Your task to perform on an android device: check the backup settings in the google photos Image 0: 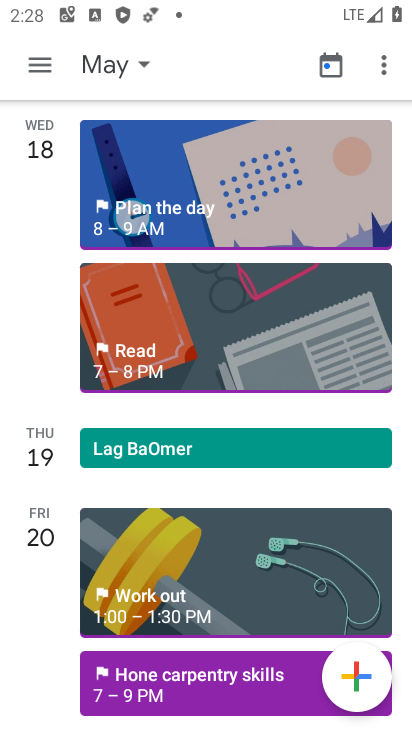
Step 0: drag from (207, 632) to (260, 116)
Your task to perform on an android device: check the backup settings in the google photos Image 1: 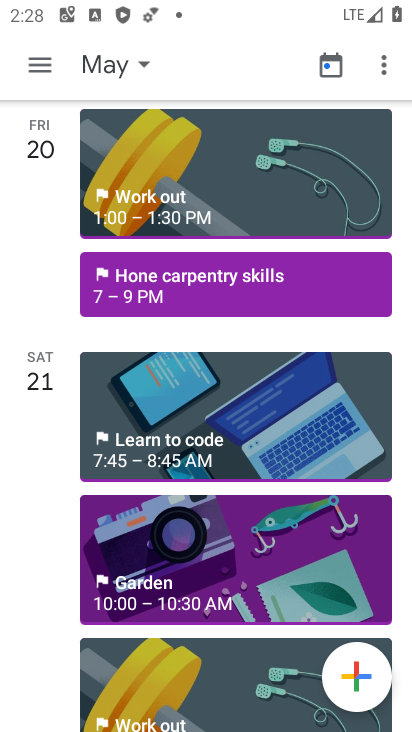
Step 1: press home button
Your task to perform on an android device: check the backup settings in the google photos Image 2: 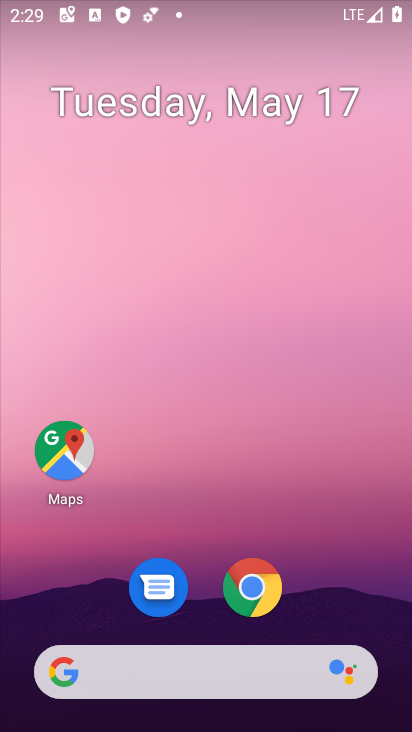
Step 2: drag from (210, 621) to (186, 118)
Your task to perform on an android device: check the backup settings in the google photos Image 3: 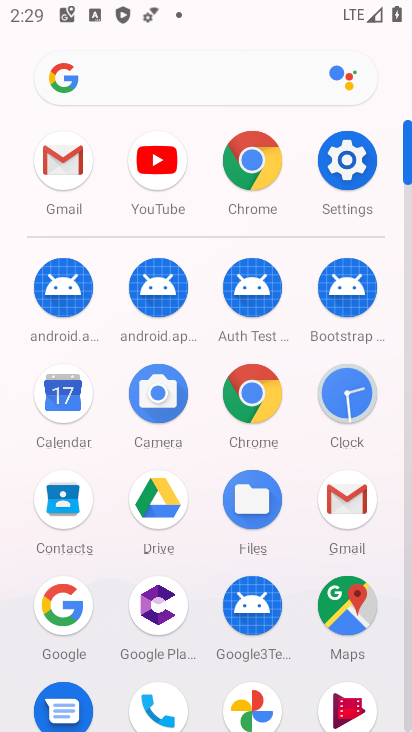
Step 3: click (250, 688)
Your task to perform on an android device: check the backup settings in the google photos Image 4: 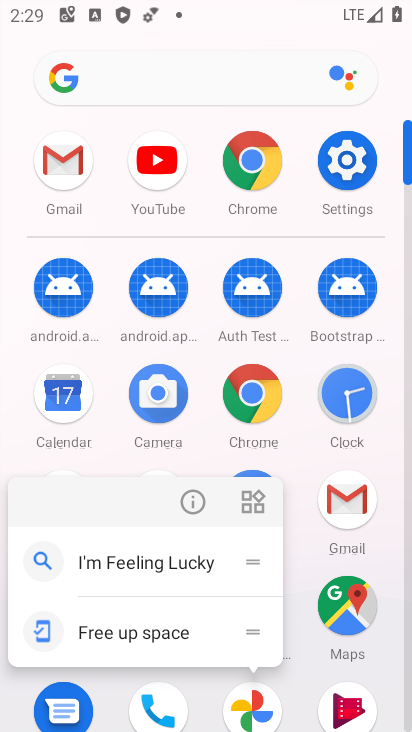
Step 4: click (182, 500)
Your task to perform on an android device: check the backup settings in the google photos Image 5: 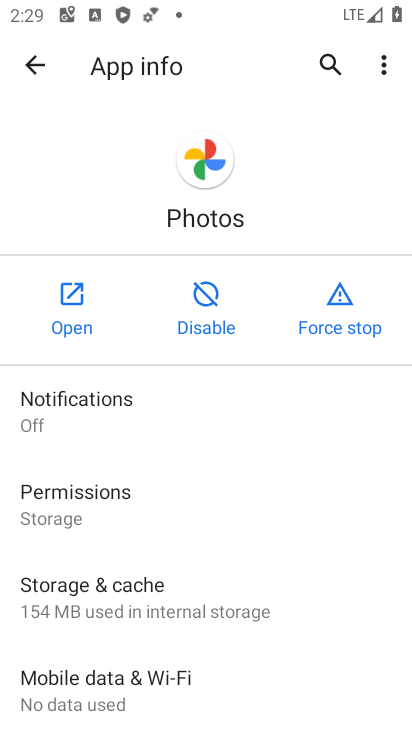
Step 5: click (78, 306)
Your task to perform on an android device: check the backup settings in the google photos Image 6: 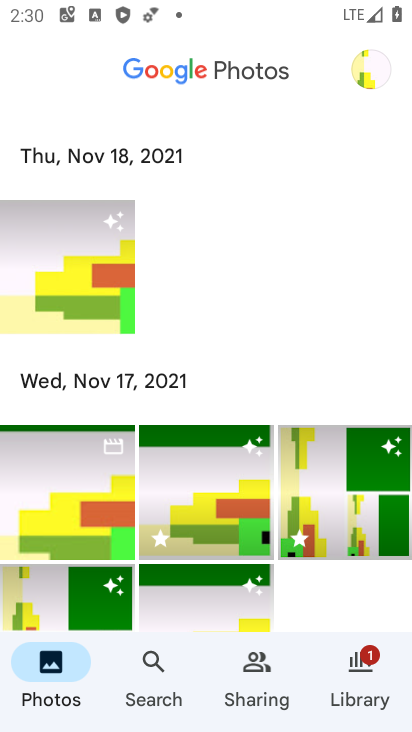
Step 6: drag from (229, 595) to (293, 179)
Your task to perform on an android device: check the backup settings in the google photos Image 7: 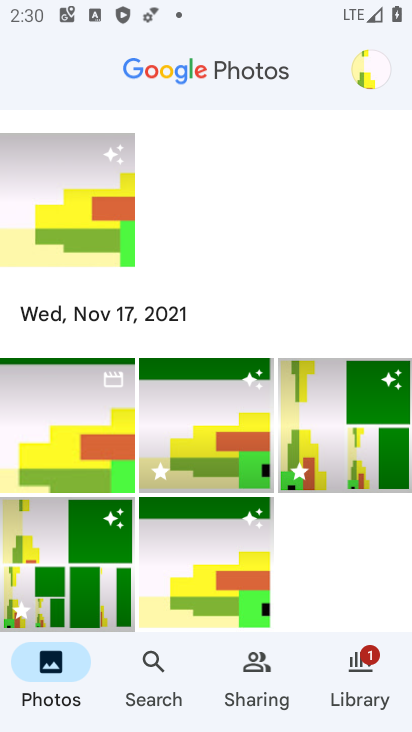
Step 7: drag from (185, 571) to (199, 282)
Your task to perform on an android device: check the backup settings in the google photos Image 8: 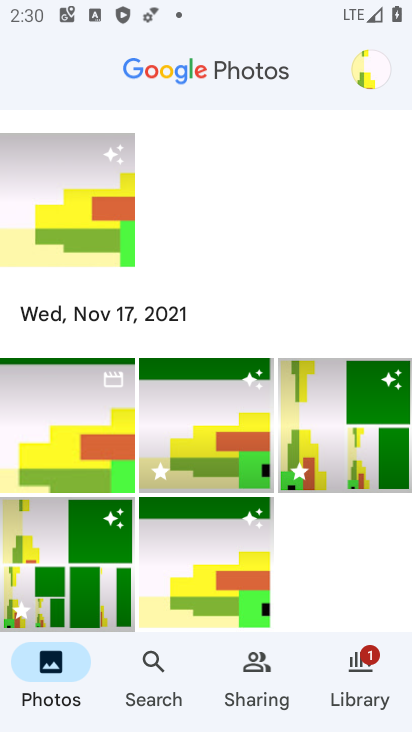
Step 8: click (389, 65)
Your task to perform on an android device: check the backup settings in the google photos Image 9: 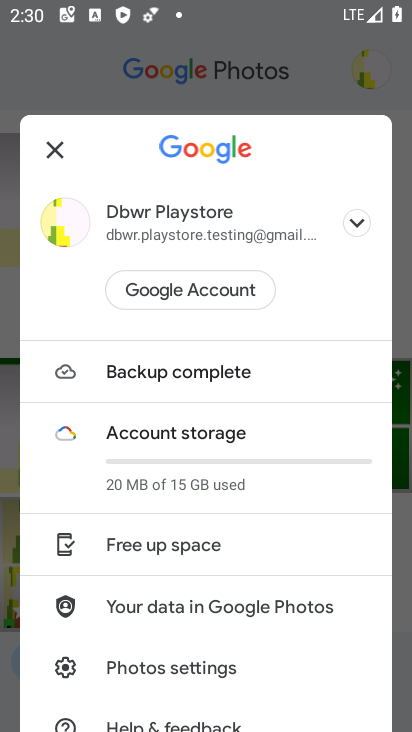
Step 9: drag from (218, 641) to (210, 275)
Your task to perform on an android device: check the backup settings in the google photos Image 10: 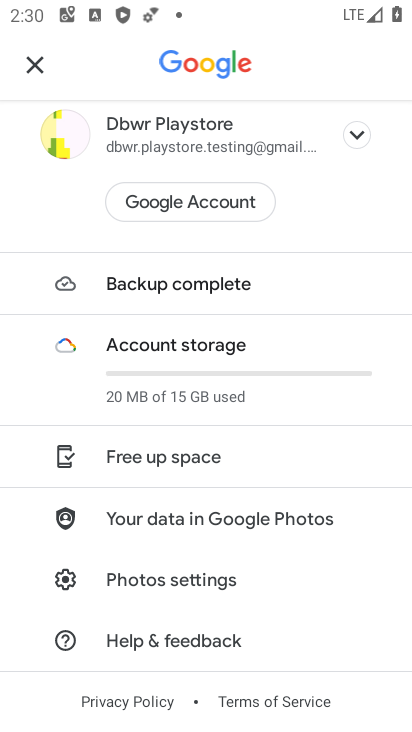
Step 10: drag from (226, 604) to (246, 162)
Your task to perform on an android device: check the backup settings in the google photos Image 11: 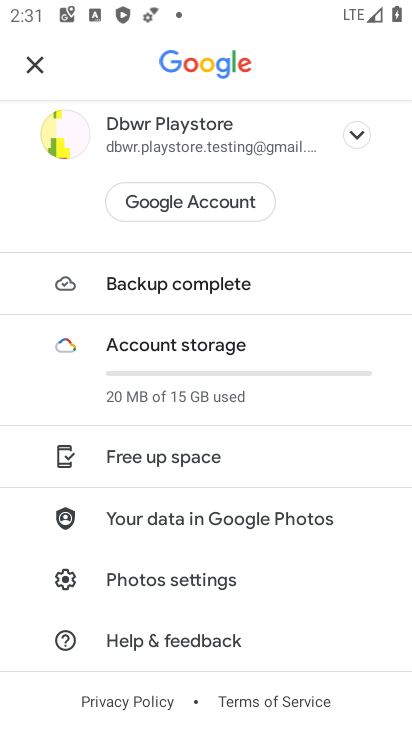
Step 11: click (156, 582)
Your task to perform on an android device: check the backup settings in the google photos Image 12: 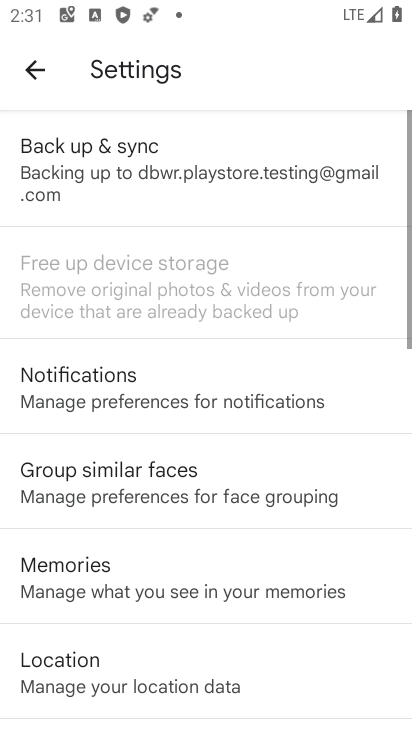
Step 12: click (130, 181)
Your task to perform on an android device: check the backup settings in the google photos Image 13: 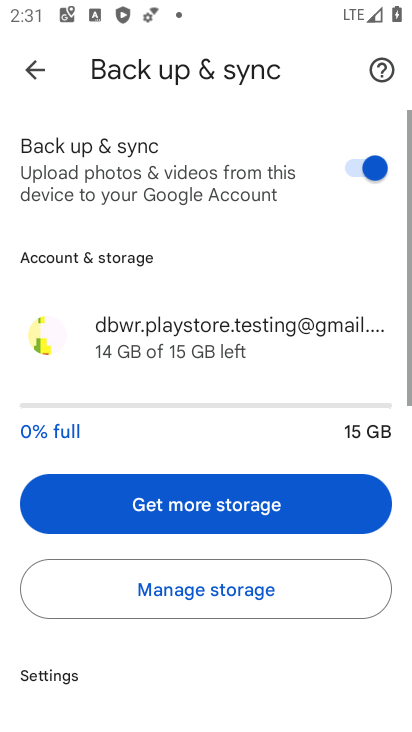
Step 13: task complete